Your task to perform on an android device: toggle location history Image 0: 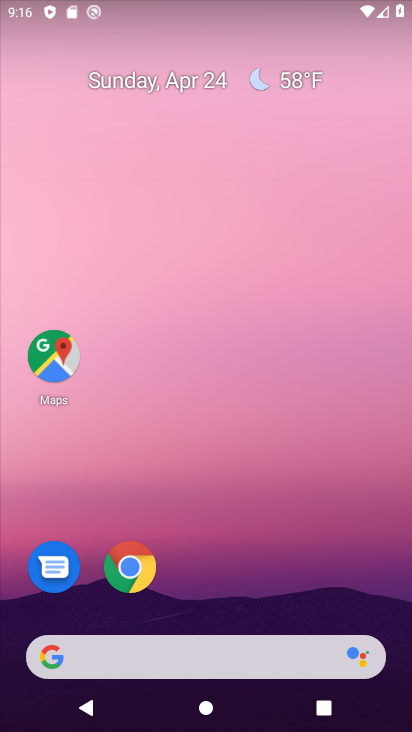
Step 0: drag from (260, 561) to (239, 65)
Your task to perform on an android device: toggle location history Image 1: 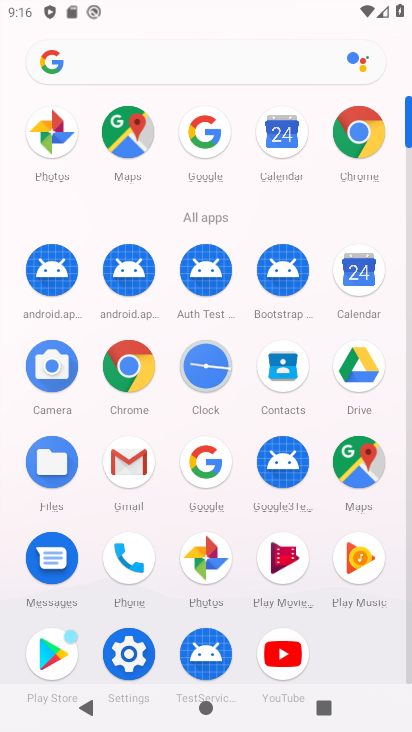
Step 1: click (133, 647)
Your task to perform on an android device: toggle location history Image 2: 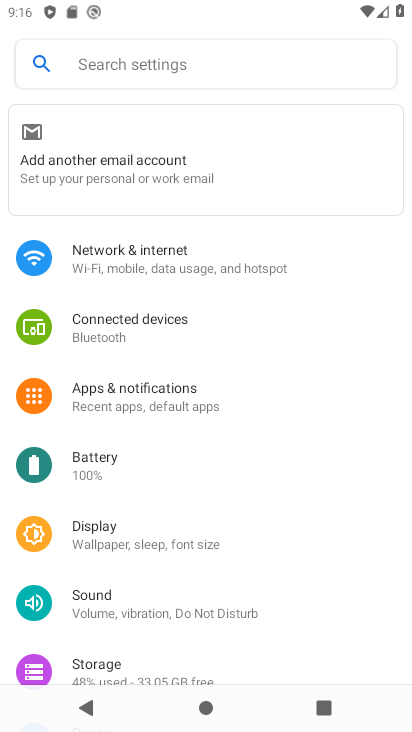
Step 2: drag from (173, 633) to (169, 312)
Your task to perform on an android device: toggle location history Image 3: 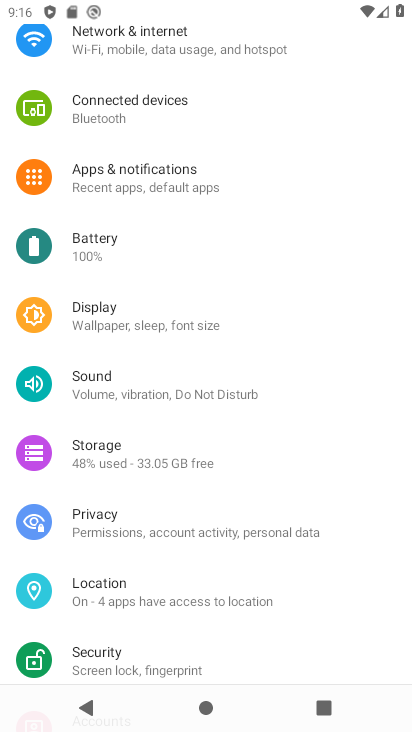
Step 3: click (135, 589)
Your task to perform on an android device: toggle location history Image 4: 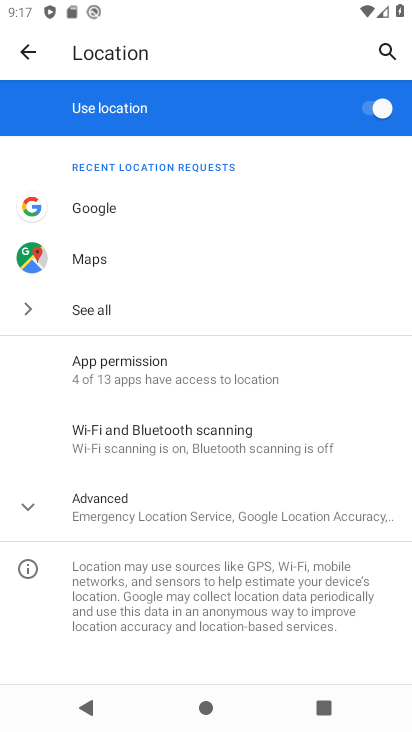
Step 4: click (127, 507)
Your task to perform on an android device: toggle location history Image 5: 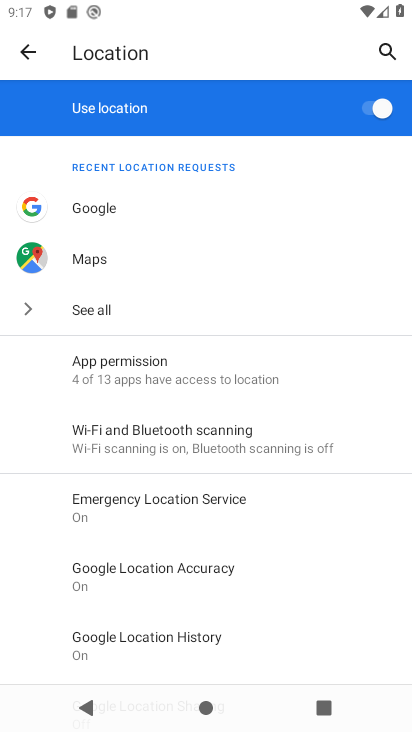
Step 5: click (193, 637)
Your task to perform on an android device: toggle location history Image 6: 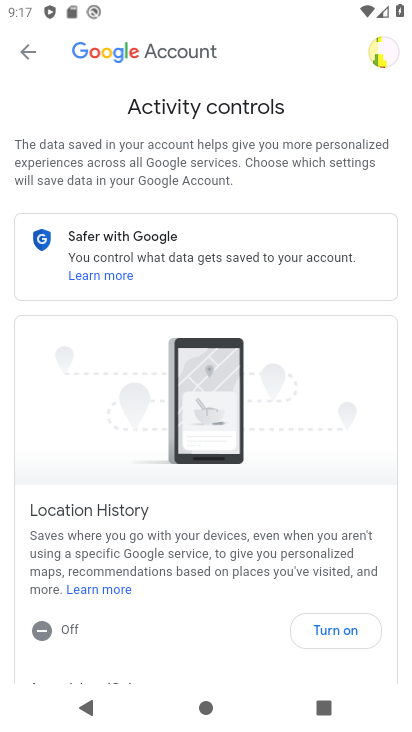
Step 6: click (333, 624)
Your task to perform on an android device: toggle location history Image 7: 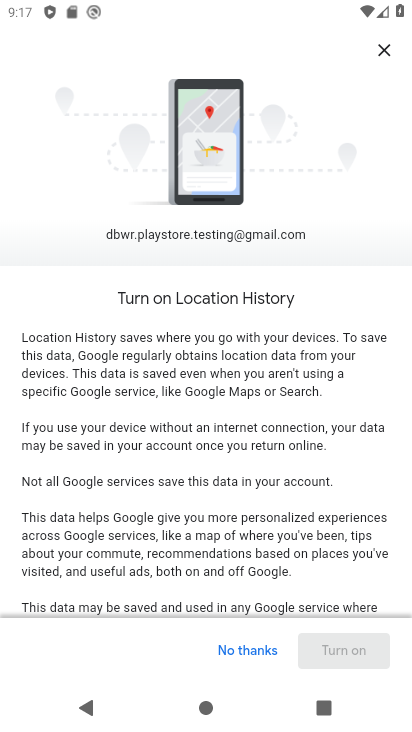
Step 7: drag from (222, 504) to (125, 3)
Your task to perform on an android device: toggle location history Image 8: 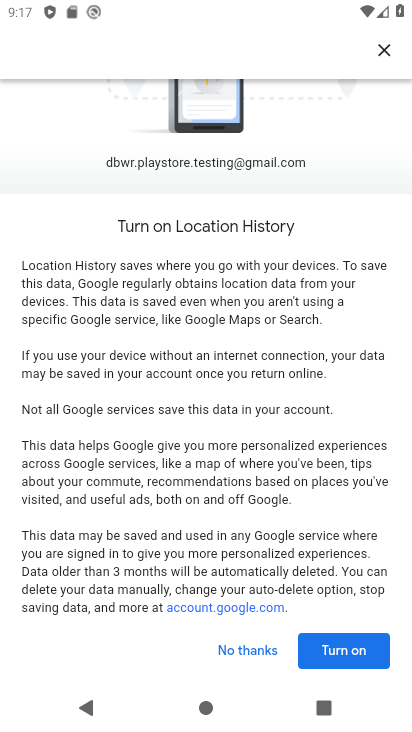
Step 8: drag from (140, 575) to (139, 149)
Your task to perform on an android device: toggle location history Image 9: 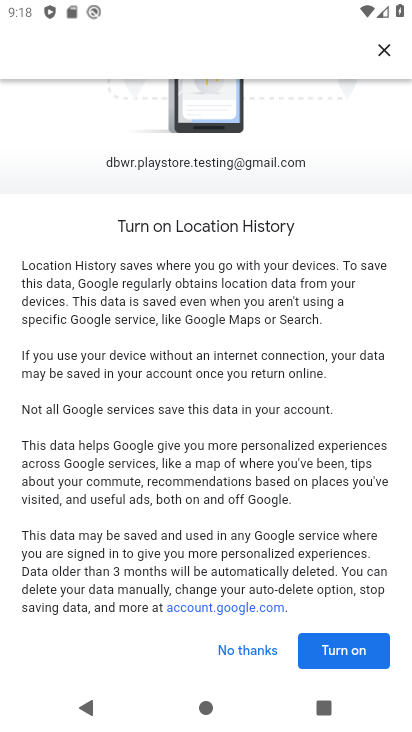
Step 9: click (361, 646)
Your task to perform on an android device: toggle location history Image 10: 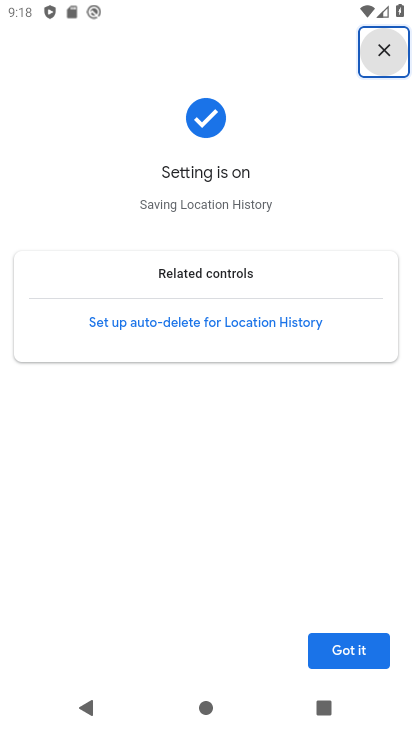
Step 10: click (361, 646)
Your task to perform on an android device: toggle location history Image 11: 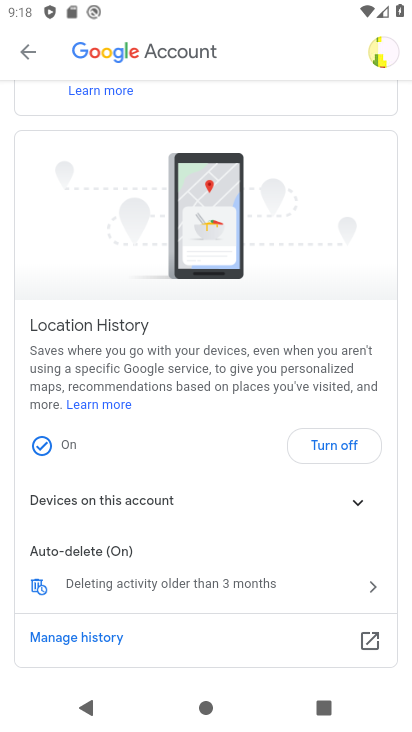
Step 11: task complete